Your task to perform on an android device: Check the news Image 0: 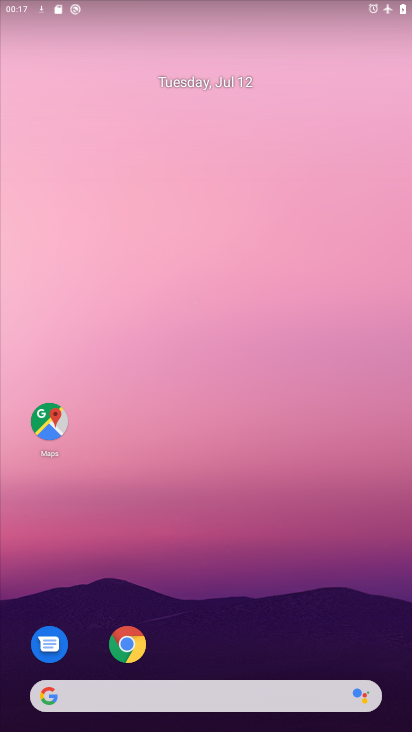
Step 0: drag from (230, 624) to (226, 357)
Your task to perform on an android device: Check the news Image 1: 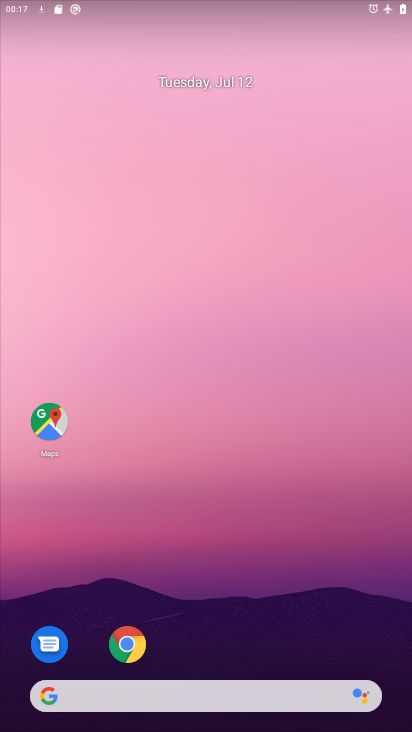
Step 1: drag from (232, 599) to (236, 439)
Your task to perform on an android device: Check the news Image 2: 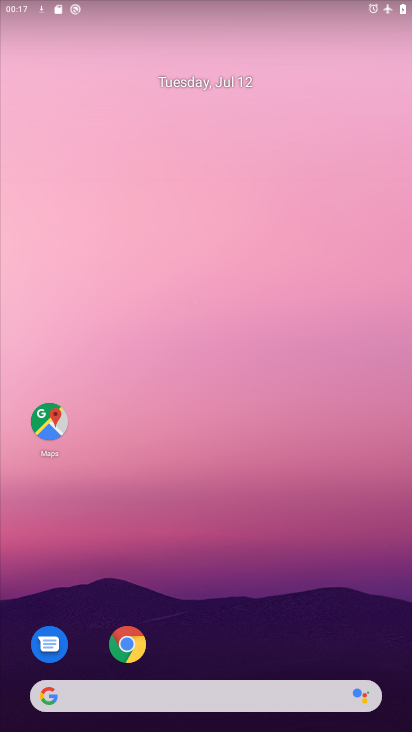
Step 2: drag from (227, 670) to (227, 299)
Your task to perform on an android device: Check the news Image 3: 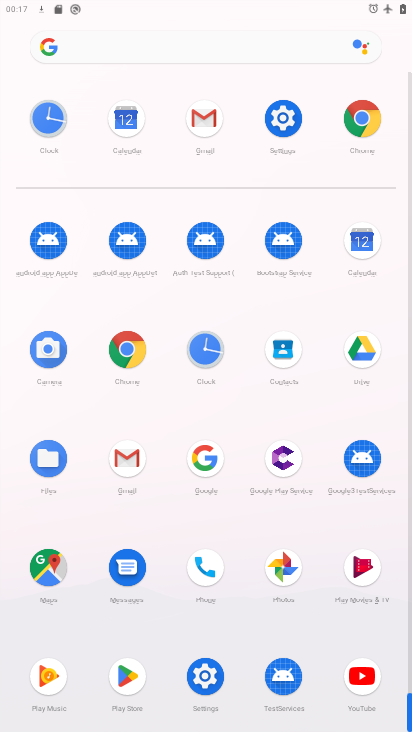
Step 3: click (349, 114)
Your task to perform on an android device: Check the news Image 4: 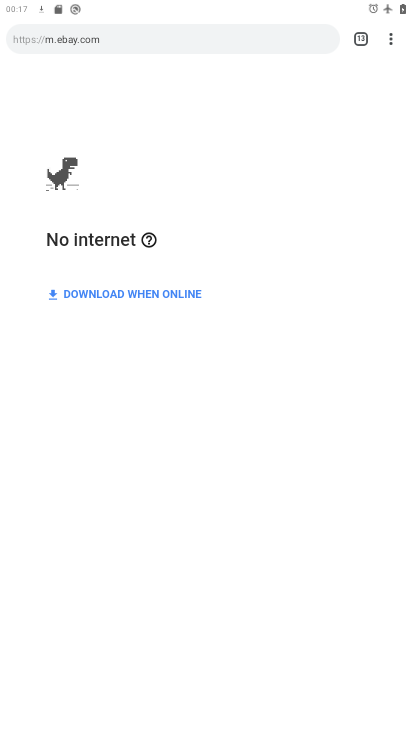
Step 4: click (401, 48)
Your task to perform on an android device: Check the news Image 5: 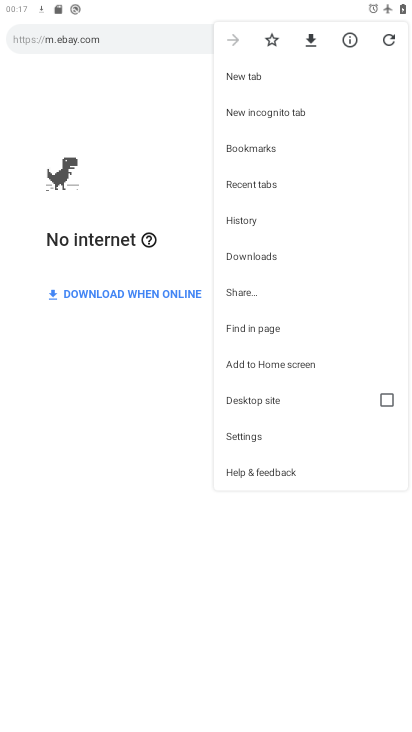
Step 5: click (276, 71)
Your task to perform on an android device: Check the news Image 6: 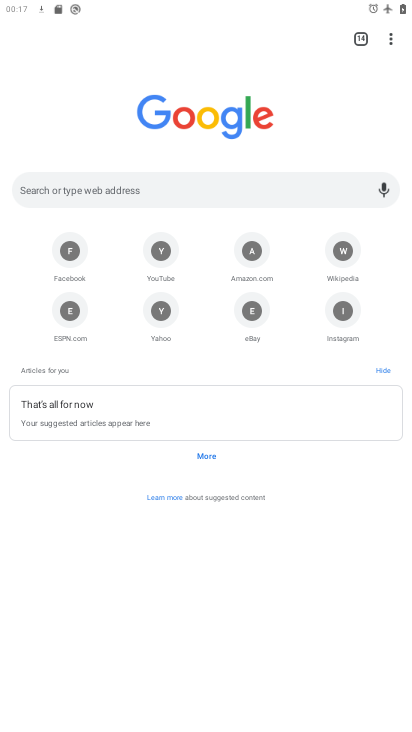
Step 6: click (125, 181)
Your task to perform on an android device: Check the news Image 7: 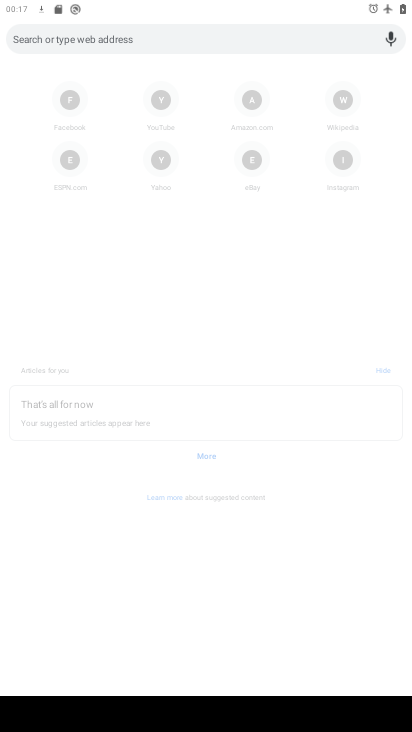
Step 7: type "Check the news "
Your task to perform on an android device: Check the news Image 8: 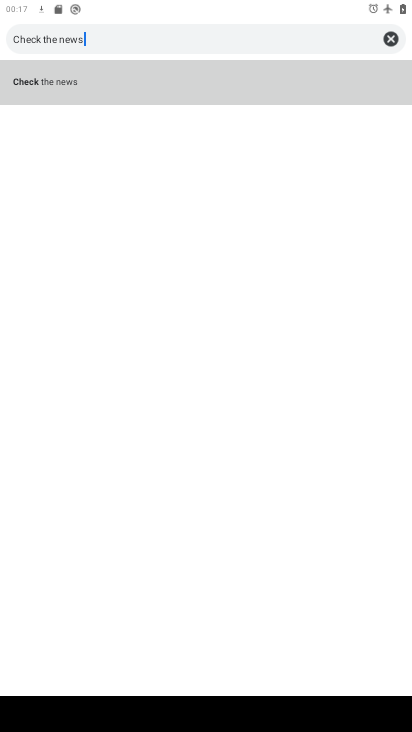
Step 8: click (123, 83)
Your task to perform on an android device: Check the news Image 9: 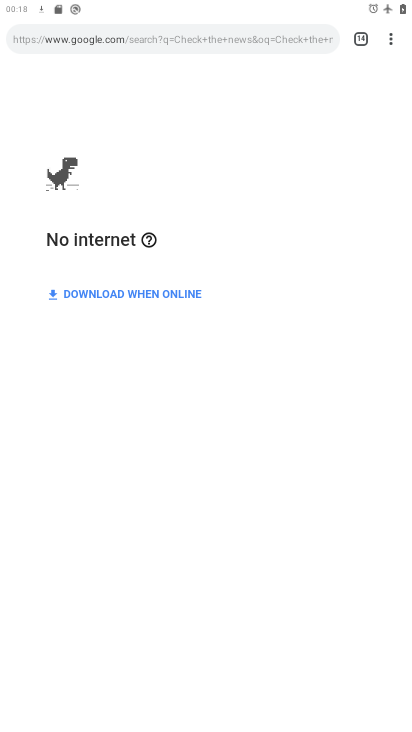
Step 9: task complete